Your task to perform on an android device: turn on the 24-hour format for clock Image 0: 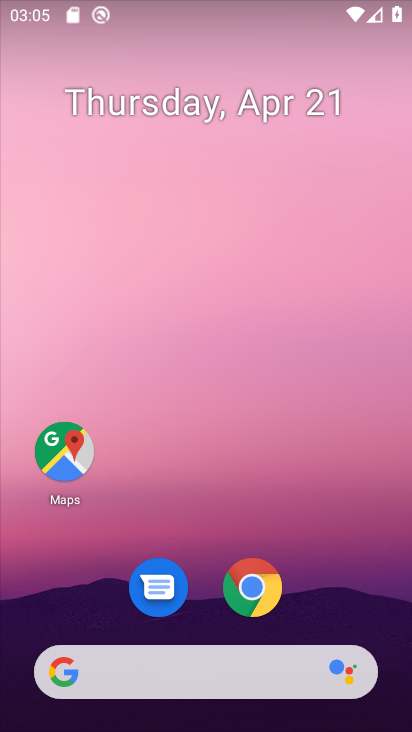
Step 0: drag from (337, 604) to (340, 197)
Your task to perform on an android device: turn on the 24-hour format for clock Image 1: 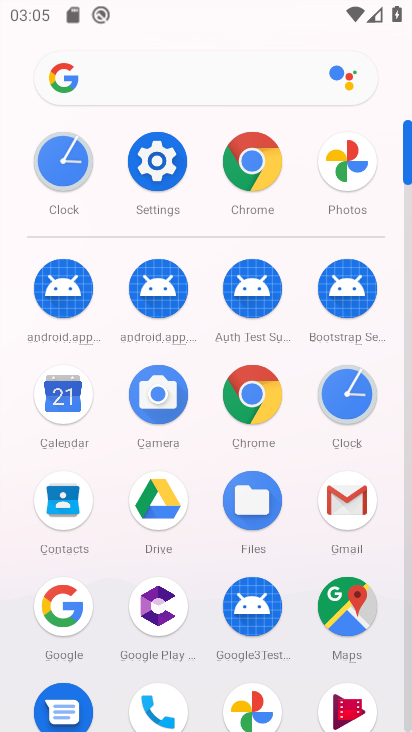
Step 1: click (350, 410)
Your task to perform on an android device: turn on the 24-hour format for clock Image 2: 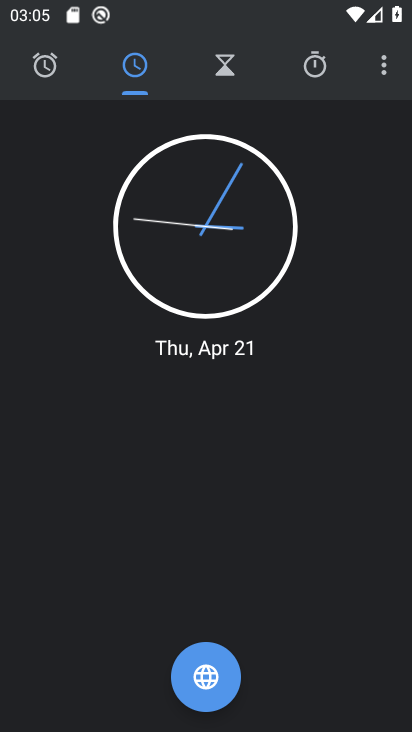
Step 2: click (382, 67)
Your task to perform on an android device: turn on the 24-hour format for clock Image 3: 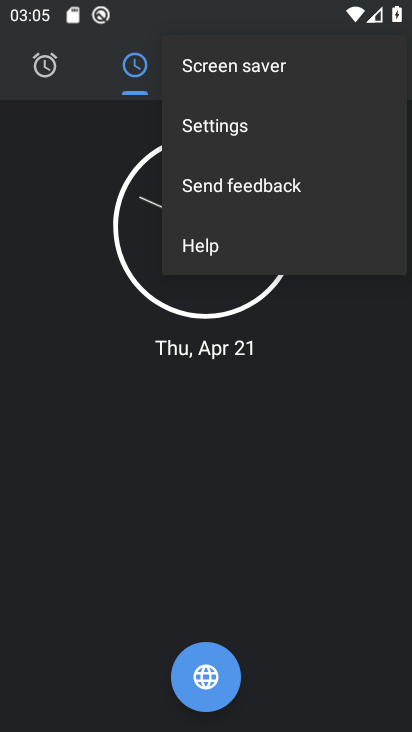
Step 3: click (256, 128)
Your task to perform on an android device: turn on the 24-hour format for clock Image 4: 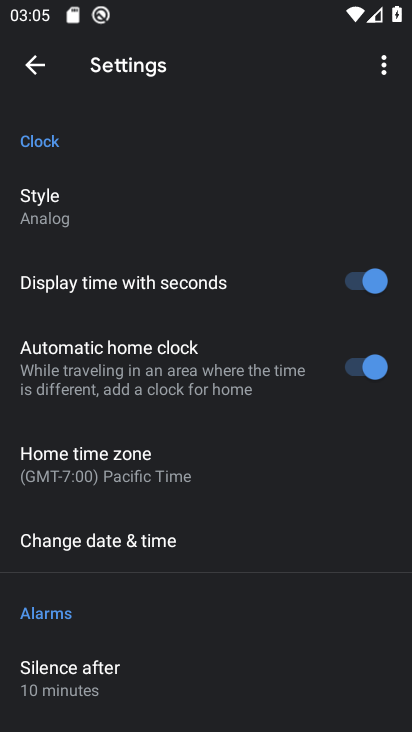
Step 4: drag from (334, 512) to (332, 356)
Your task to perform on an android device: turn on the 24-hour format for clock Image 5: 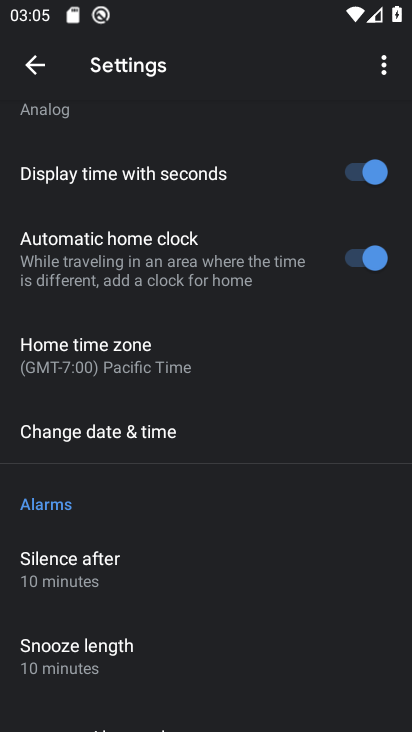
Step 5: drag from (320, 551) to (335, 403)
Your task to perform on an android device: turn on the 24-hour format for clock Image 6: 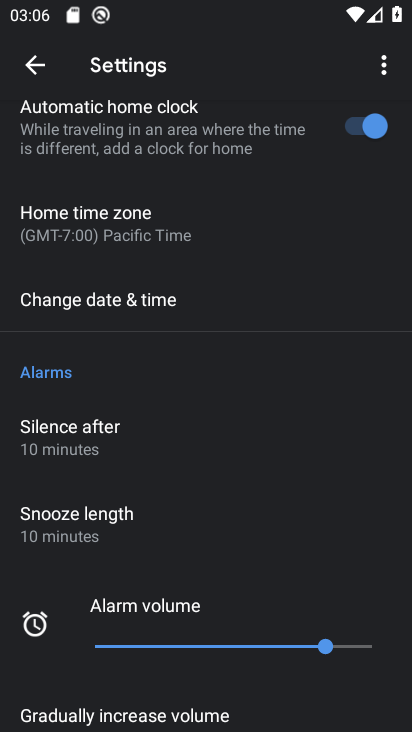
Step 6: drag from (318, 542) to (318, 369)
Your task to perform on an android device: turn on the 24-hour format for clock Image 7: 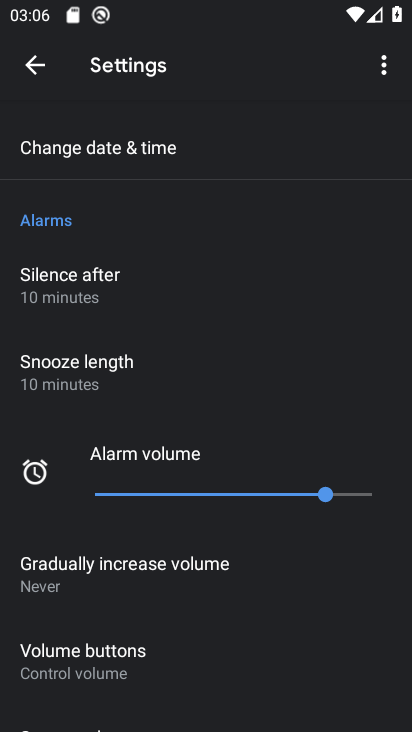
Step 7: drag from (341, 520) to (343, 375)
Your task to perform on an android device: turn on the 24-hour format for clock Image 8: 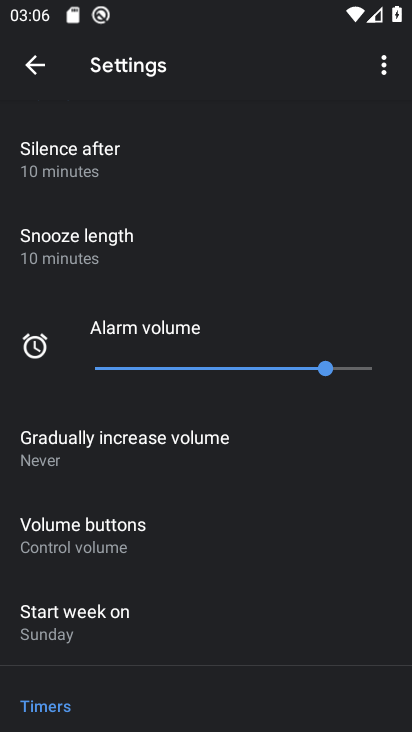
Step 8: drag from (324, 610) to (321, 477)
Your task to perform on an android device: turn on the 24-hour format for clock Image 9: 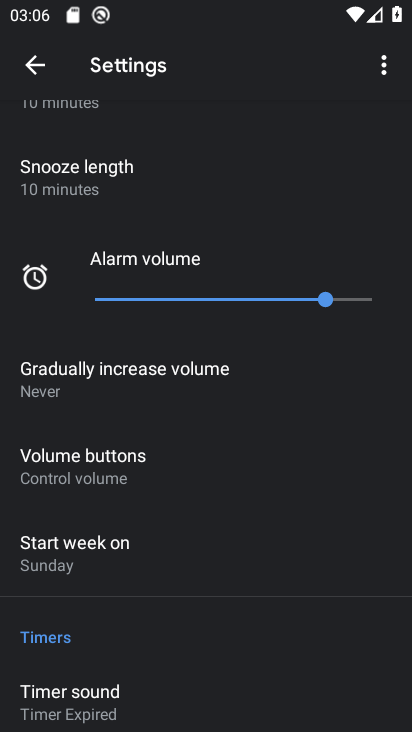
Step 9: drag from (326, 634) to (347, 429)
Your task to perform on an android device: turn on the 24-hour format for clock Image 10: 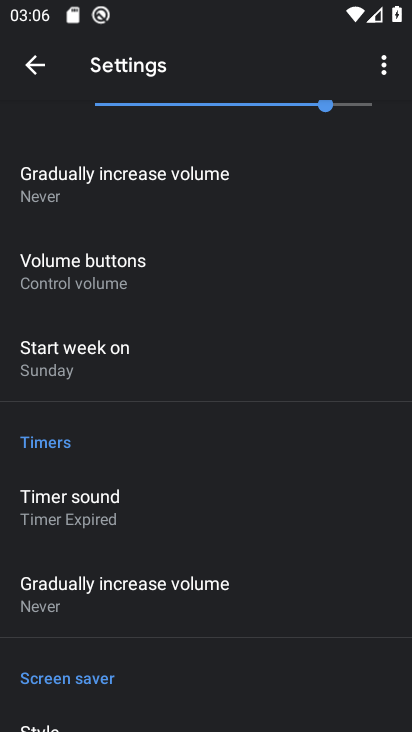
Step 10: drag from (332, 650) to (329, 465)
Your task to perform on an android device: turn on the 24-hour format for clock Image 11: 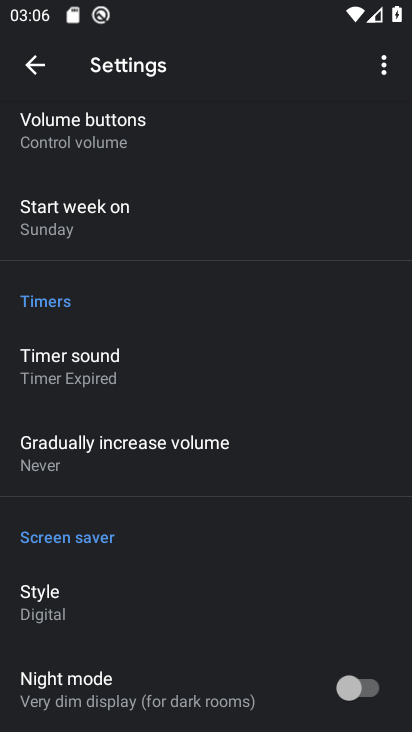
Step 11: drag from (314, 311) to (314, 467)
Your task to perform on an android device: turn on the 24-hour format for clock Image 12: 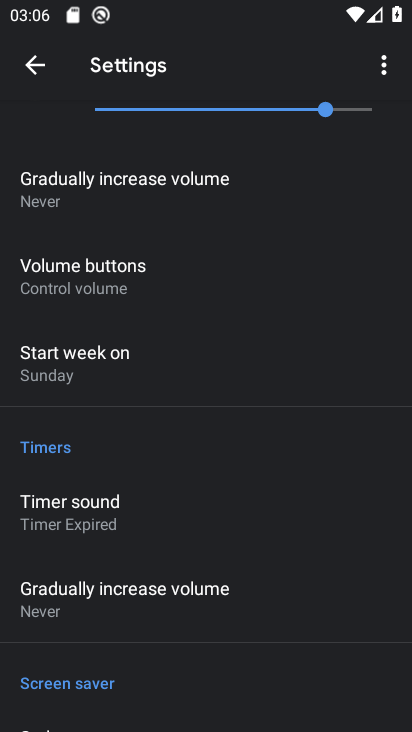
Step 12: drag from (308, 307) to (311, 445)
Your task to perform on an android device: turn on the 24-hour format for clock Image 13: 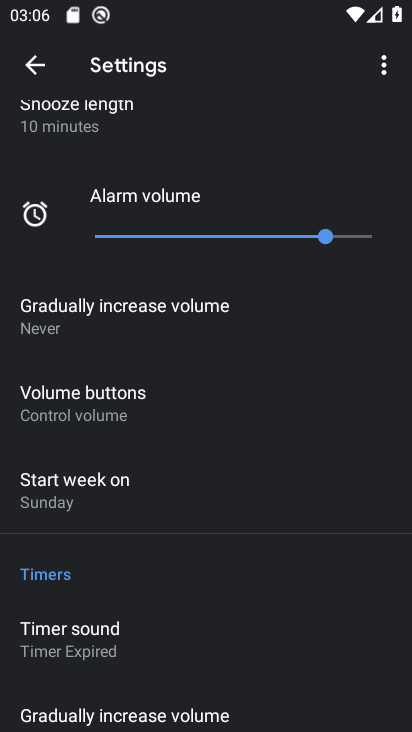
Step 13: drag from (308, 286) to (307, 494)
Your task to perform on an android device: turn on the 24-hour format for clock Image 14: 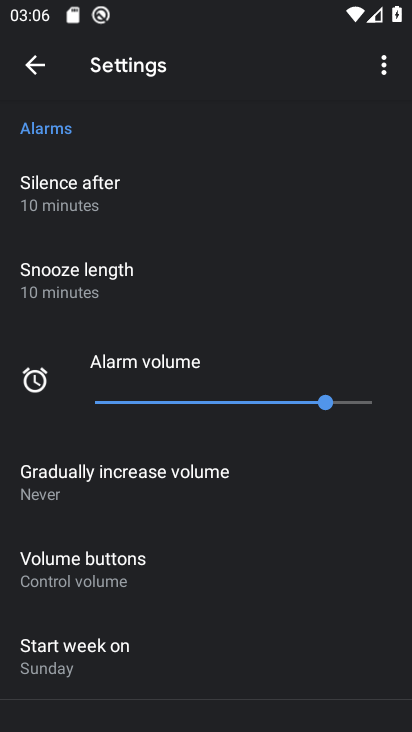
Step 14: drag from (335, 276) to (354, 480)
Your task to perform on an android device: turn on the 24-hour format for clock Image 15: 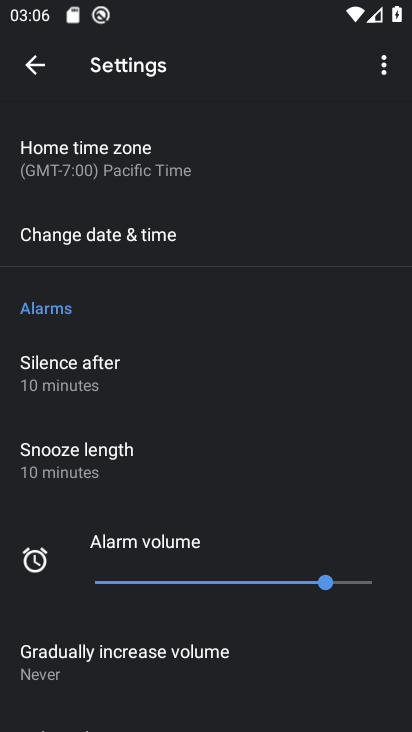
Step 15: click (204, 241)
Your task to perform on an android device: turn on the 24-hour format for clock Image 16: 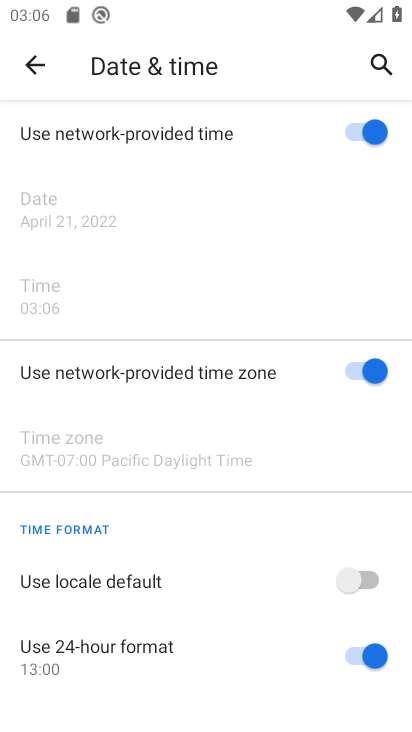
Step 16: task complete